Your task to perform on an android device: Go to calendar. Show me events next week Image 0: 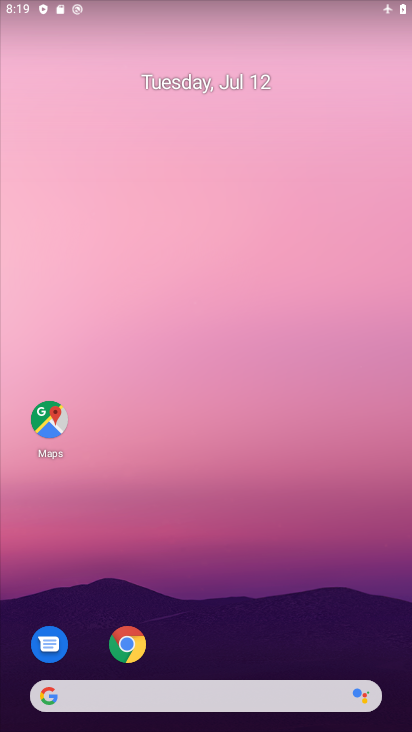
Step 0: drag from (219, 653) to (182, 163)
Your task to perform on an android device: Go to calendar. Show me events next week Image 1: 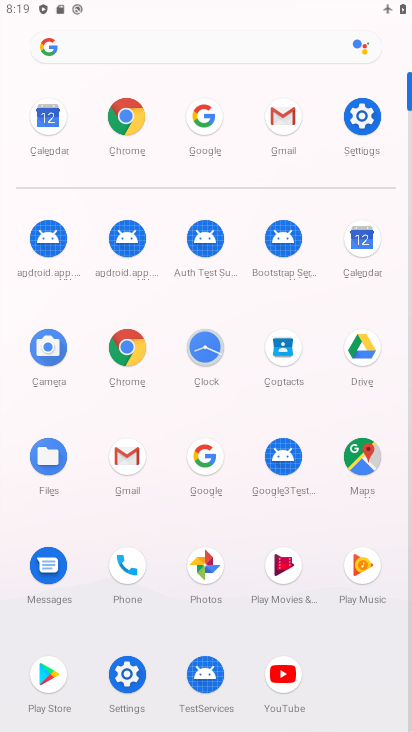
Step 1: click (361, 240)
Your task to perform on an android device: Go to calendar. Show me events next week Image 2: 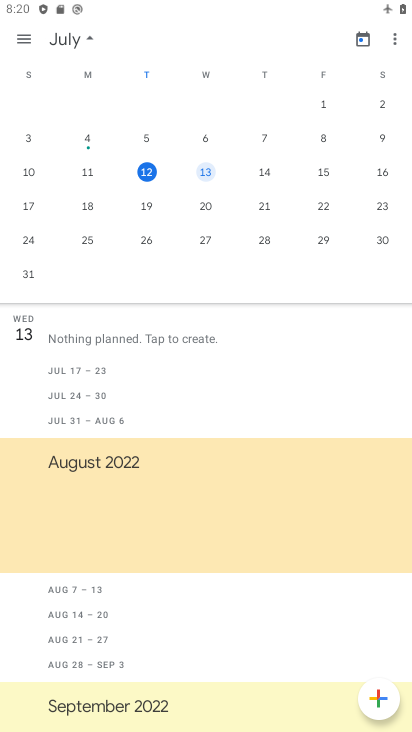
Step 2: click (54, 217)
Your task to perform on an android device: Go to calendar. Show me events next week Image 3: 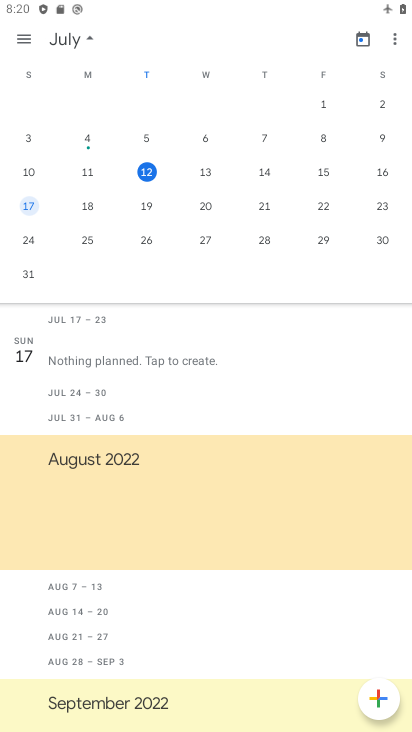
Step 3: click (69, 198)
Your task to perform on an android device: Go to calendar. Show me events next week Image 4: 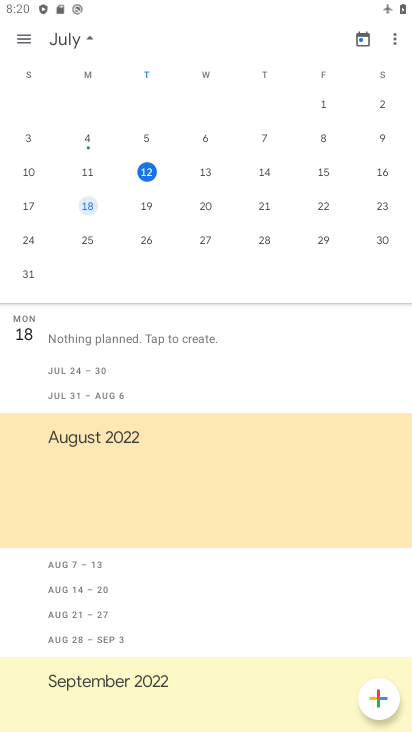
Step 4: click (93, 204)
Your task to perform on an android device: Go to calendar. Show me events next week Image 5: 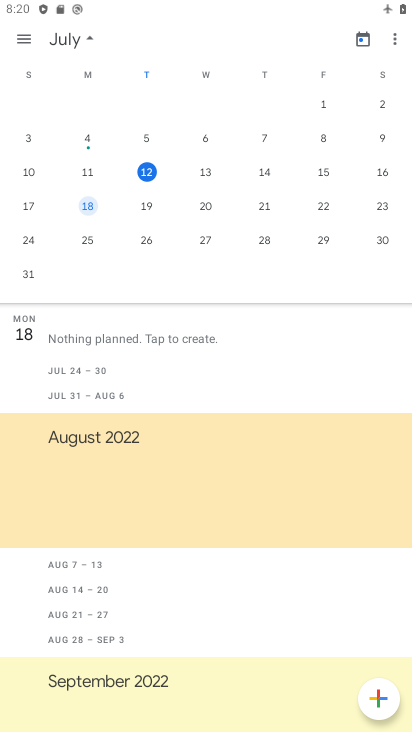
Step 5: click (137, 210)
Your task to perform on an android device: Go to calendar. Show me events next week Image 6: 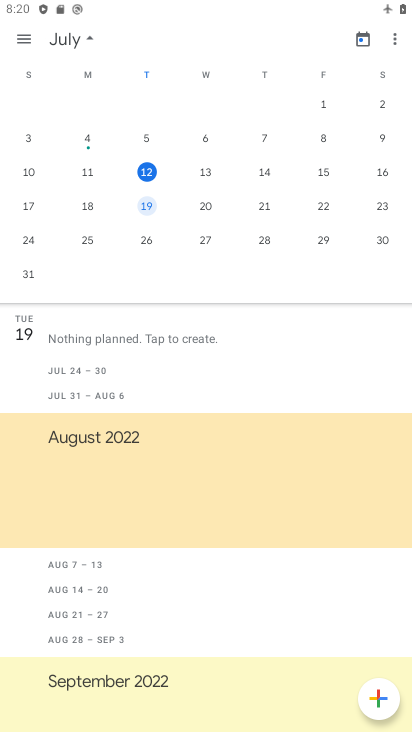
Step 6: task complete